Your task to perform on an android device: turn on priority inbox in the gmail app Image 0: 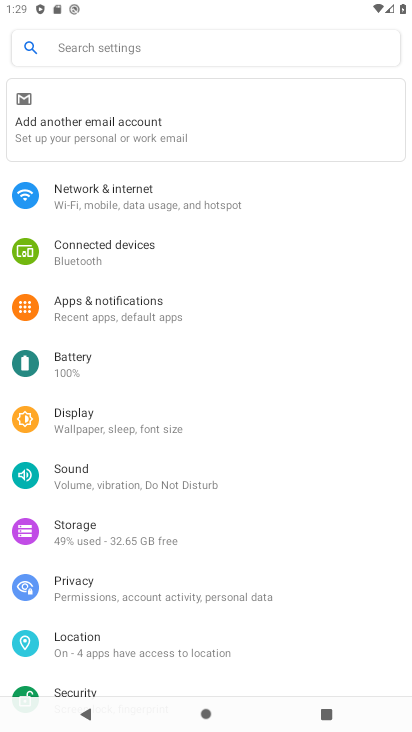
Step 0: press home button
Your task to perform on an android device: turn on priority inbox in the gmail app Image 1: 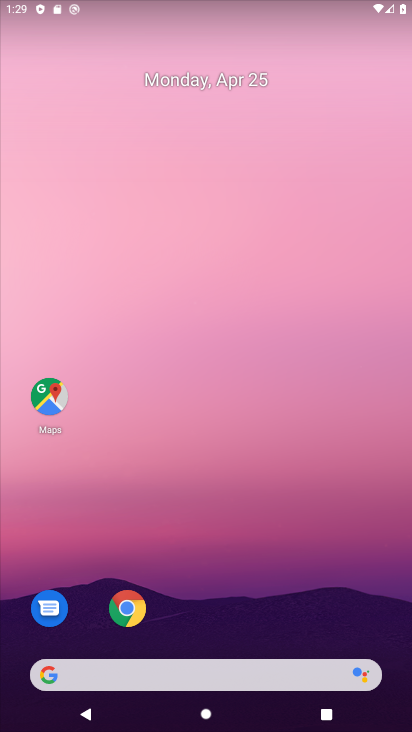
Step 1: drag from (362, 614) to (367, 193)
Your task to perform on an android device: turn on priority inbox in the gmail app Image 2: 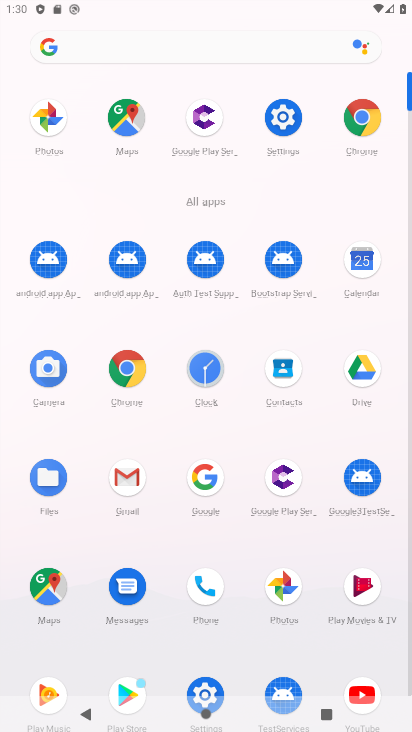
Step 2: click (134, 487)
Your task to perform on an android device: turn on priority inbox in the gmail app Image 3: 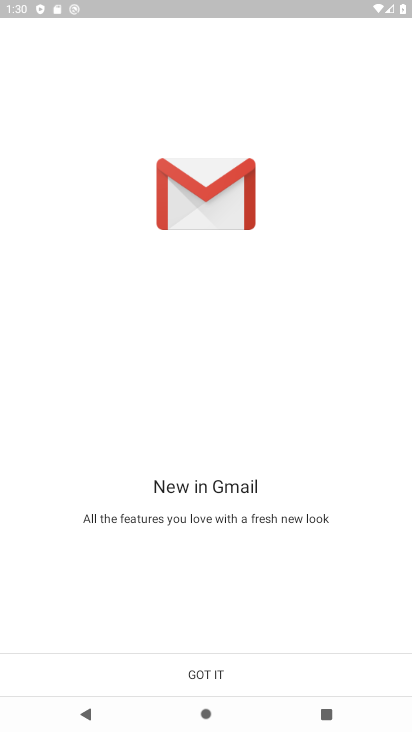
Step 3: click (219, 672)
Your task to perform on an android device: turn on priority inbox in the gmail app Image 4: 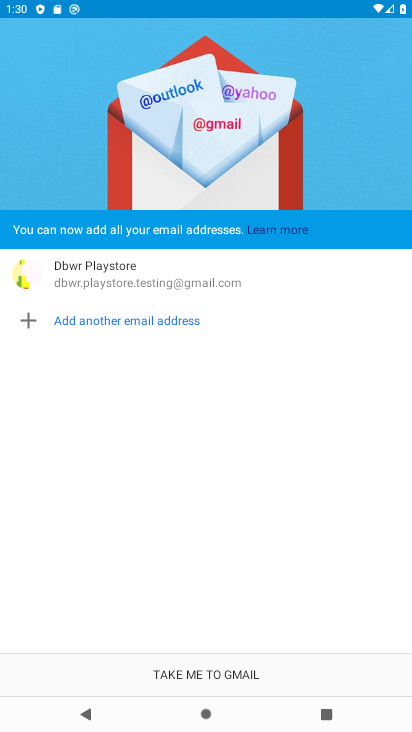
Step 4: click (219, 672)
Your task to perform on an android device: turn on priority inbox in the gmail app Image 5: 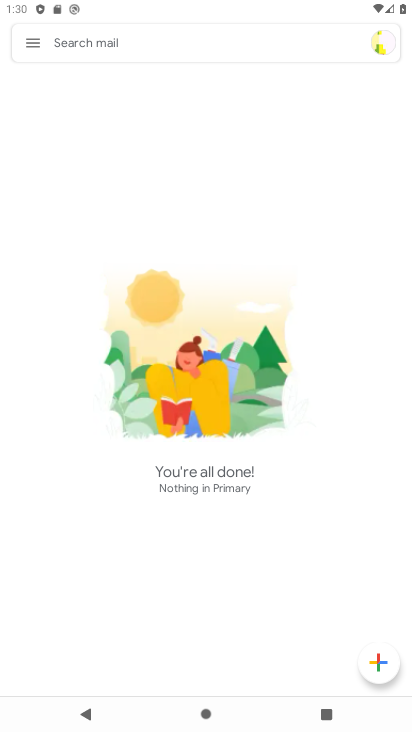
Step 5: click (34, 46)
Your task to perform on an android device: turn on priority inbox in the gmail app Image 6: 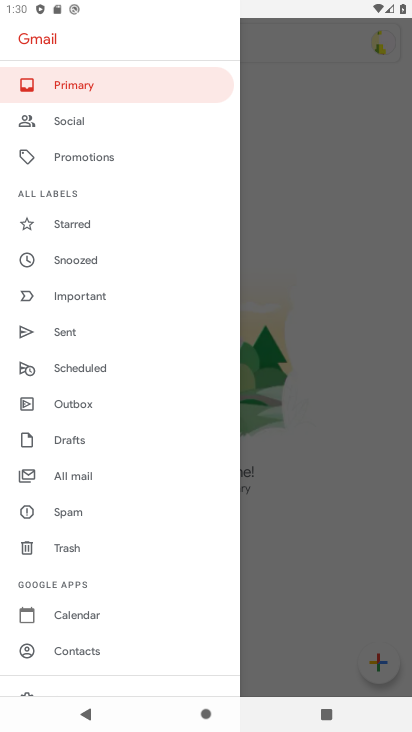
Step 6: drag from (143, 643) to (154, 443)
Your task to perform on an android device: turn on priority inbox in the gmail app Image 7: 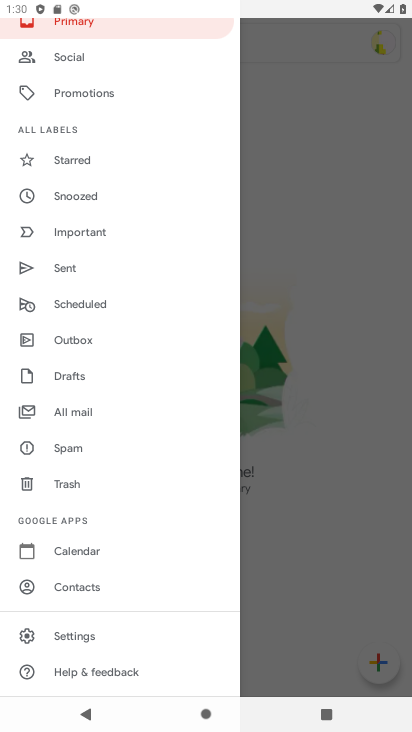
Step 7: click (86, 637)
Your task to perform on an android device: turn on priority inbox in the gmail app Image 8: 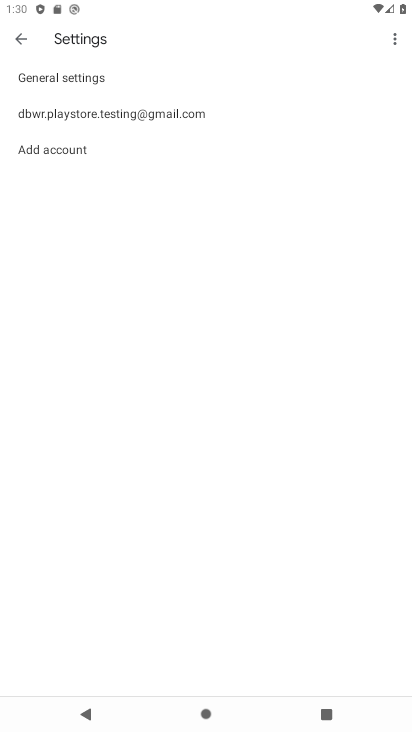
Step 8: click (152, 111)
Your task to perform on an android device: turn on priority inbox in the gmail app Image 9: 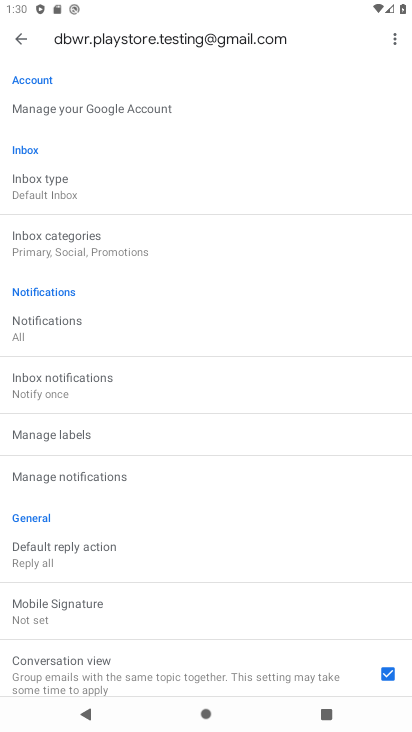
Step 9: drag from (277, 583) to (270, 378)
Your task to perform on an android device: turn on priority inbox in the gmail app Image 10: 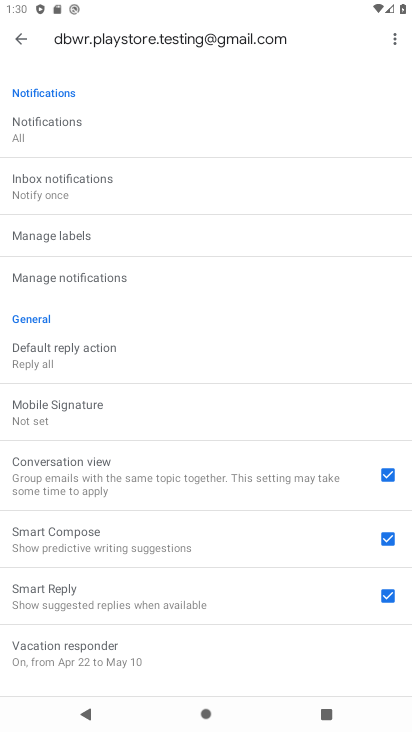
Step 10: drag from (283, 646) to (294, 482)
Your task to perform on an android device: turn on priority inbox in the gmail app Image 11: 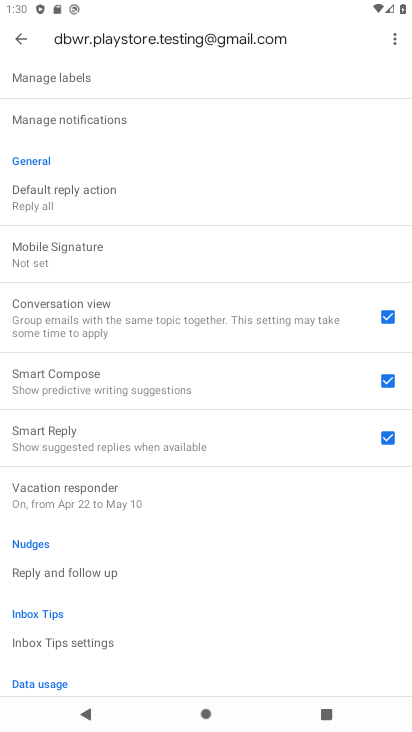
Step 11: drag from (279, 206) to (263, 426)
Your task to perform on an android device: turn on priority inbox in the gmail app Image 12: 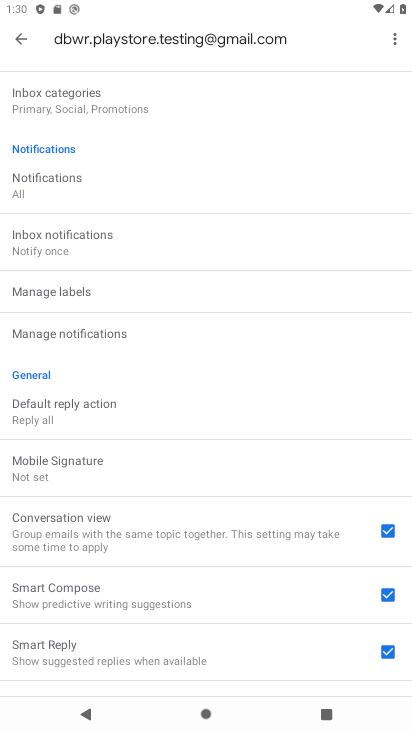
Step 12: drag from (240, 181) to (222, 399)
Your task to perform on an android device: turn on priority inbox in the gmail app Image 13: 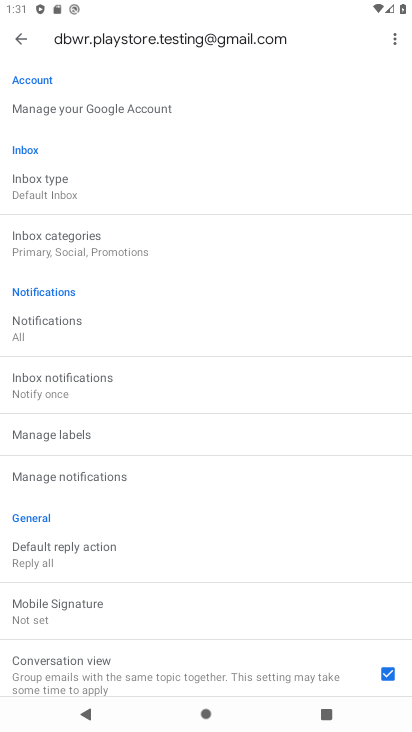
Step 13: click (53, 174)
Your task to perform on an android device: turn on priority inbox in the gmail app Image 14: 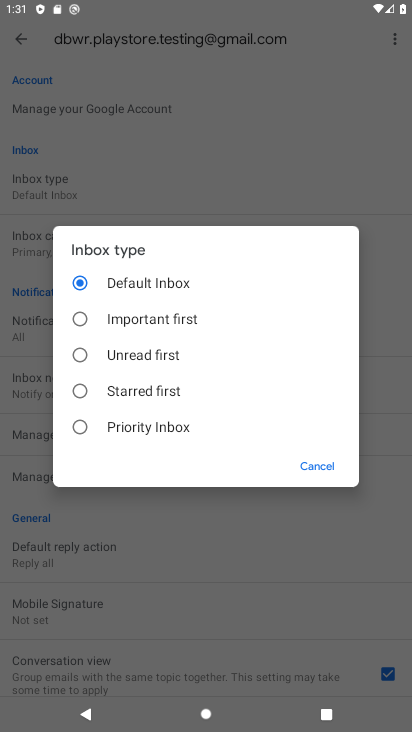
Step 14: click (175, 431)
Your task to perform on an android device: turn on priority inbox in the gmail app Image 15: 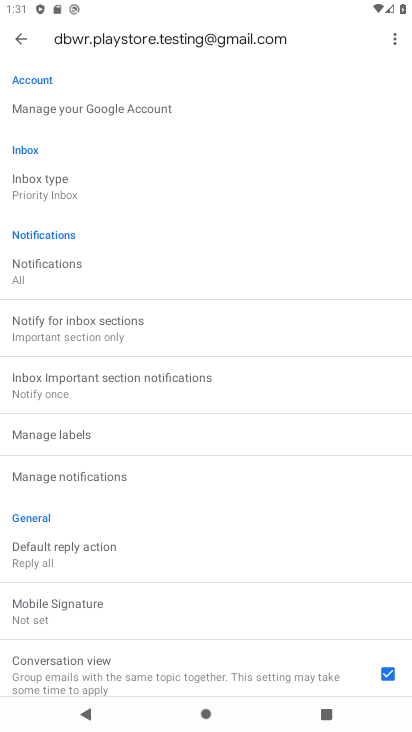
Step 15: task complete